Your task to perform on an android device: move an email to a new category in the gmail app Image 0: 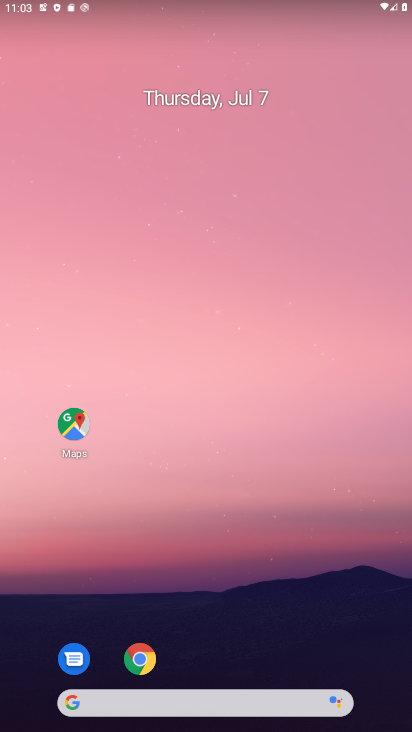
Step 0: drag from (220, 669) to (249, 26)
Your task to perform on an android device: move an email to a new category in the gmail app Image 1: 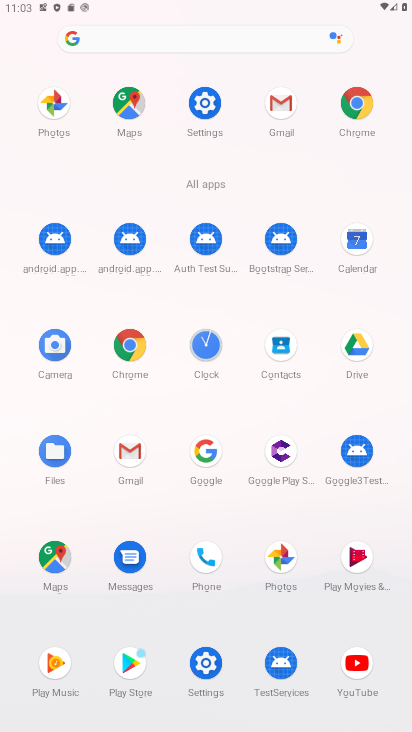
Step 1: click (280, 93)
Your task to perform on an android device: move an email to a new category in the gmail app Image 2: 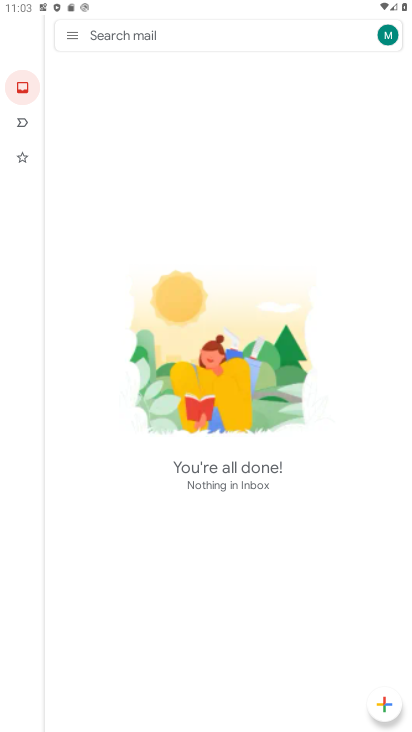
Step 2: click (69, 32)
Your task to perform on an android device: move an email to a new category in the gmail app Image 3: 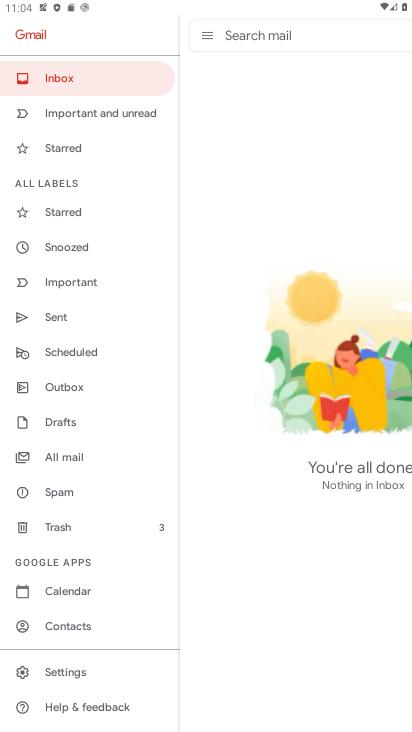
Step 3: click (86, 455)
Your task to perform on an android device: move an email to a new category in the gmail app Image 4: 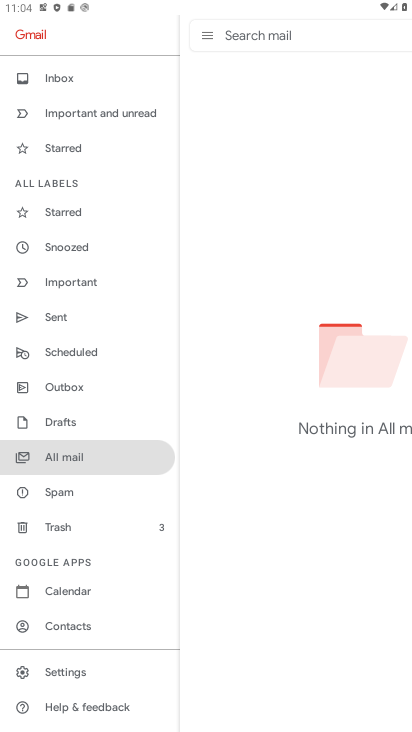
Step 4: task complete